Your task to perform on an android device: open the mobile data screen to see how much data has been used Image 0: 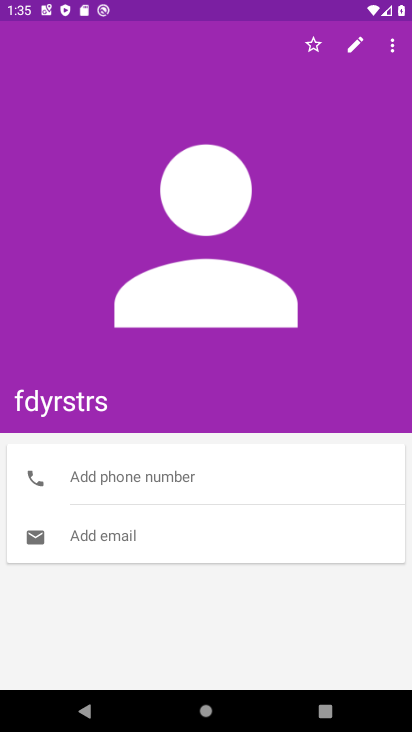
Step 0: press home button
Your task to perform on an android device: open the mobile data screen to see how much data has been used Image 1: 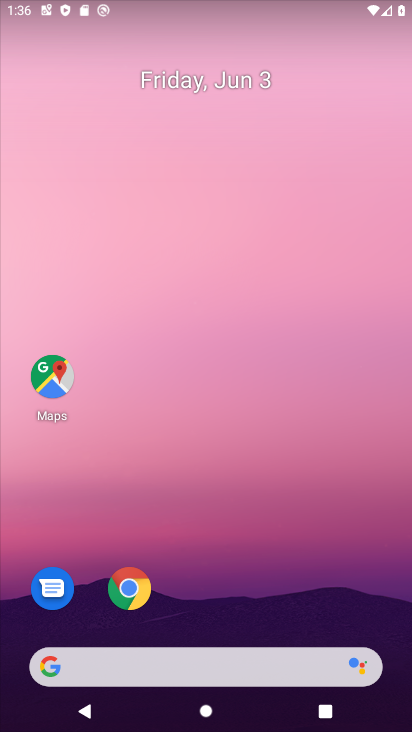
Step 1: drag from (41, 395) to (186, 153)
Your task to perform on an android device: open the mobile data screen to see how much data has been used Image 2: 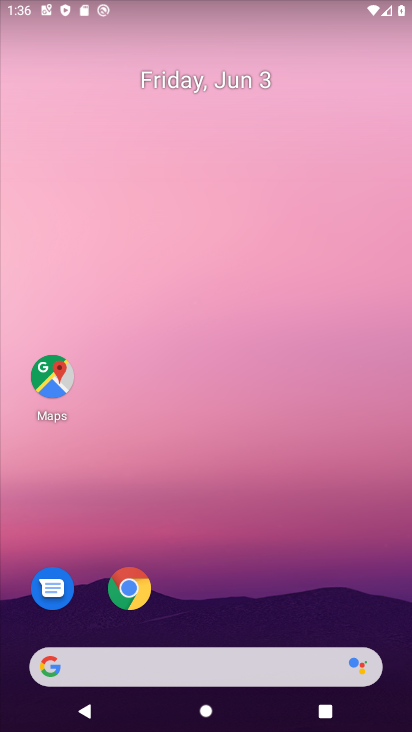
Step 2: drag from (50, 462) to (189, 171)
Your task to perform on an android device: open the mobile data screen to see how much data has been used Image 3: 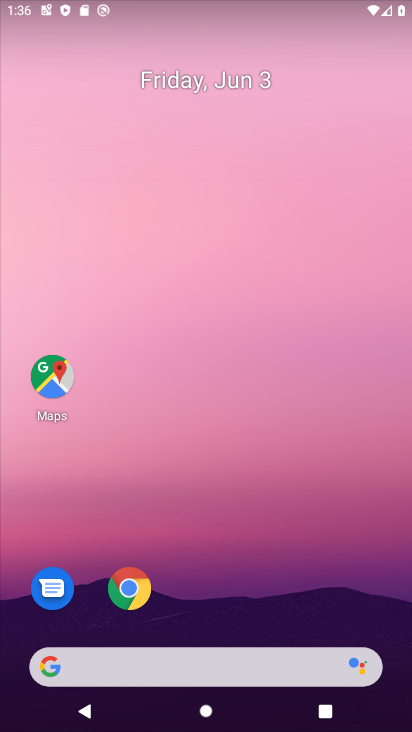
Step 3: drag from (3, 585) to (225, 105)
Your task to perform on an android device: open the mobile data screen to see how much data has been used Image 4: 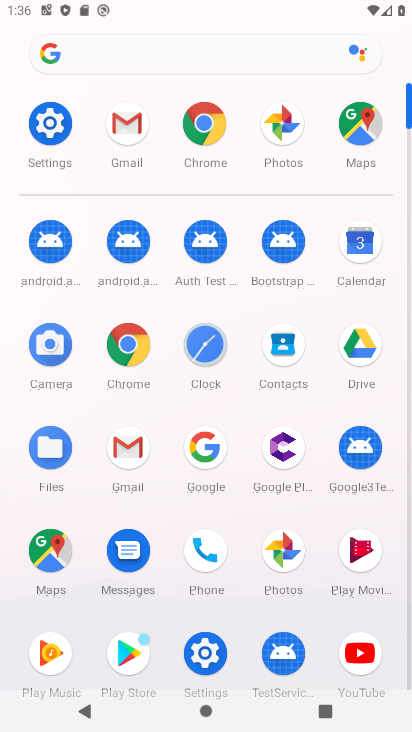
Step 4: click (30, 123)
Your task to perform on an android device: open the mobile data screen to see how much data has been used Image 5: 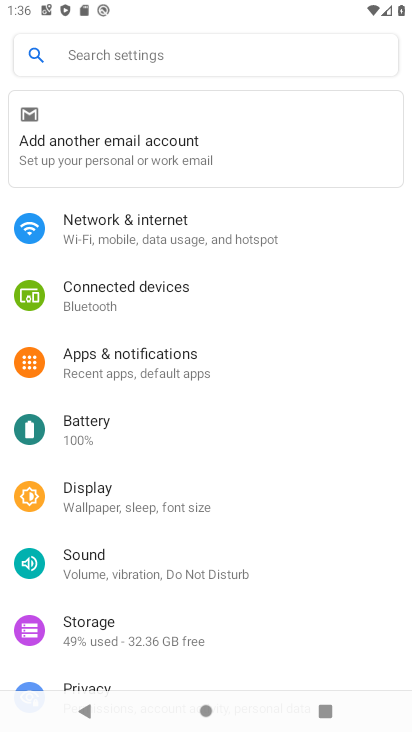
Step 5: click (130, 222)
Your task to perform on an android device: open the mobile data screen to see how much data has been used Image 6: 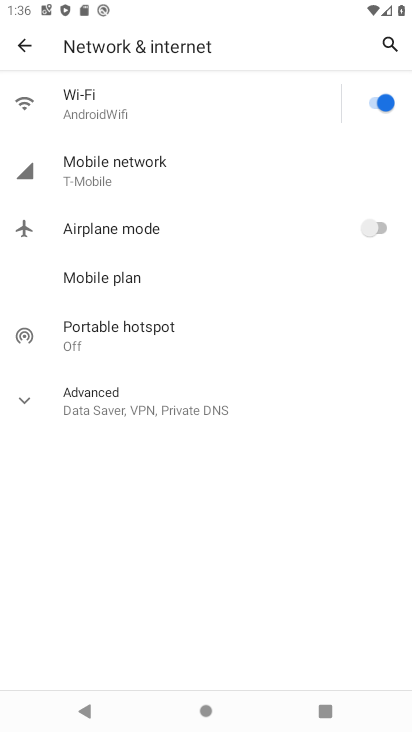
Step 6: click (57, 175)
Your task to perform on an android device: open the mobile data screen to see how much data has been used Image 7: 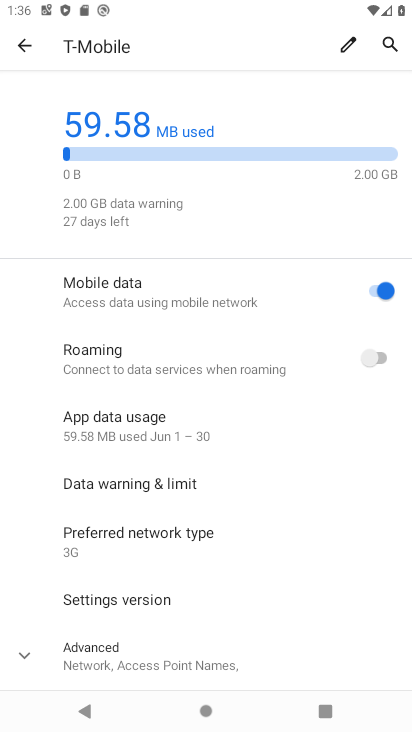
Step 7: task complete